Your task to perform on an android device: turn on bluetooth scan Image 0: 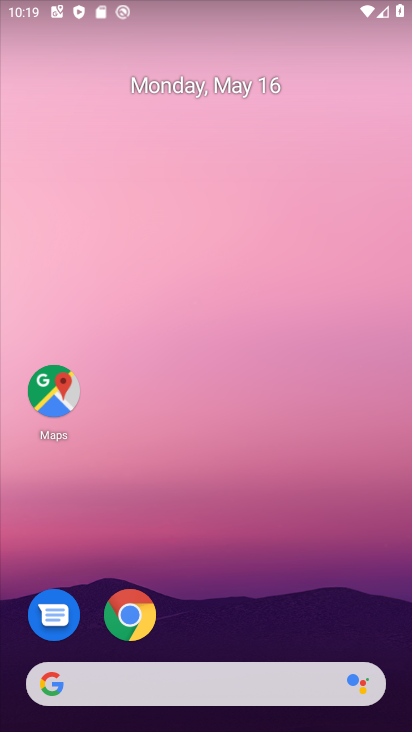
Step 0: drag from (278, 691) to (294, 169)
Your task to perform on an android device: turn on bluetooth scan Image 1: 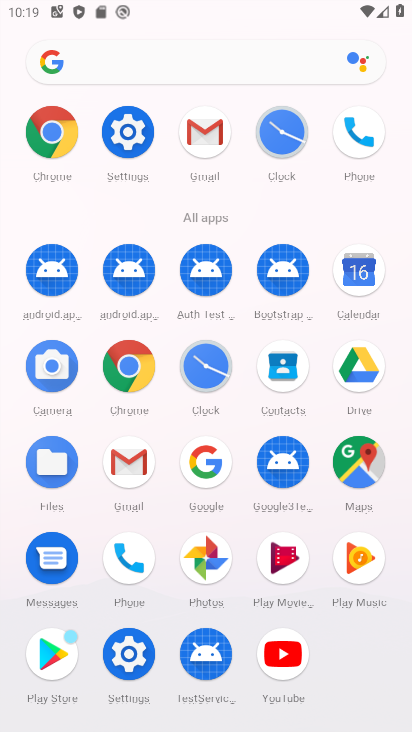
Step 1: click (129, 645)
Your task to perform on an android device: turn on bluetooth scan Image 2: 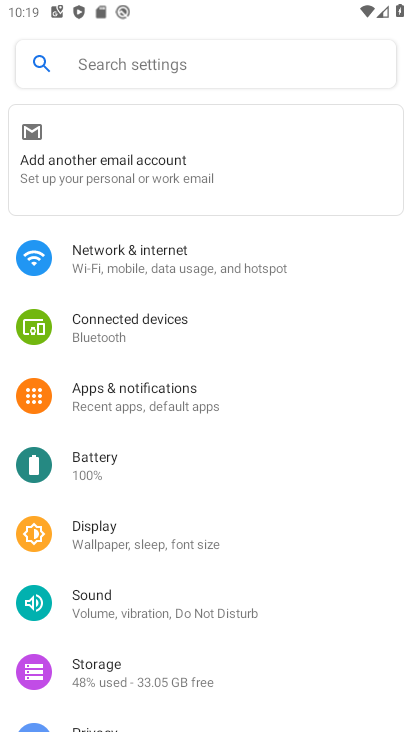
Step 2: click (162, 73)
Your task to perform on an android device: turn on bluetooth scan Image 3: 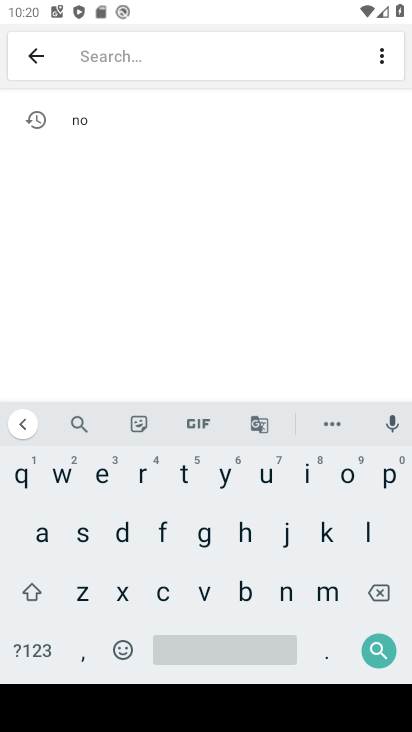
Step 3: click (361, 527)
Your task to perform on an android device: turn on bluetooth scan Image 4: 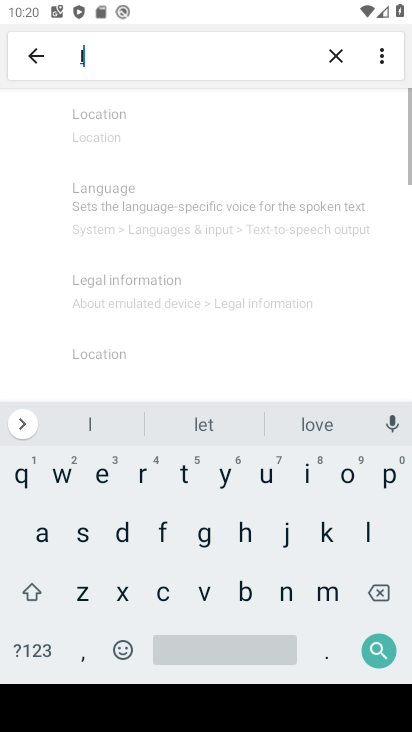
Step 4: click (346, 477)
Your task to perform on an android device: turn on bluetooth scan Image 5: 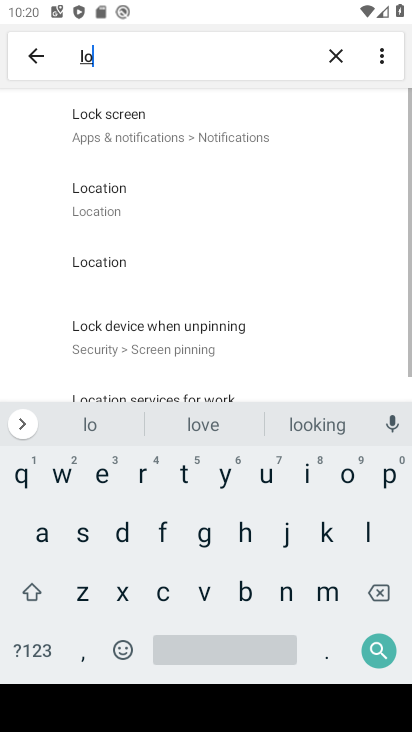
Step 5: click (129, 205)
Your task to perform on an android device: turn on bluetooth scan Image 6: 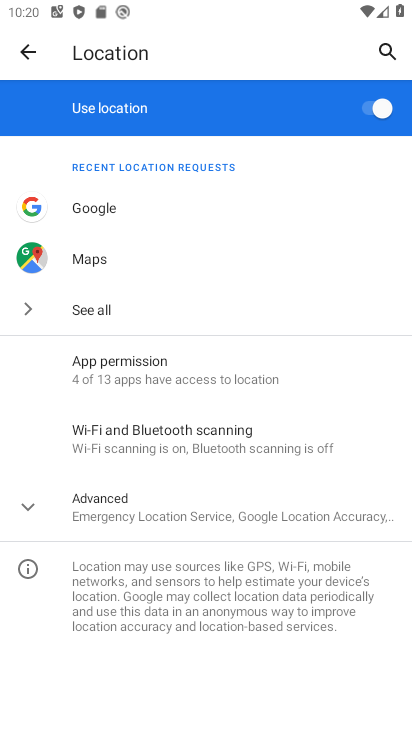
Step 6: click (176, 424)
Your task to perform on an android device: turn on bluetooth scan Image 7: 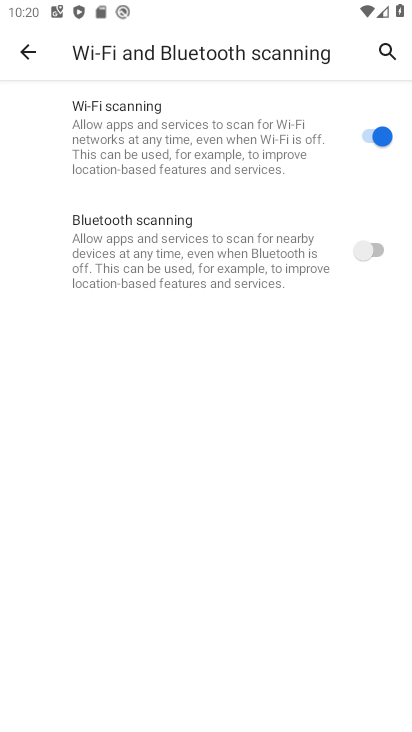
Step 7: click (302, 244)
Your task to perform on an android device: turn on bluetooth scan Image 8: 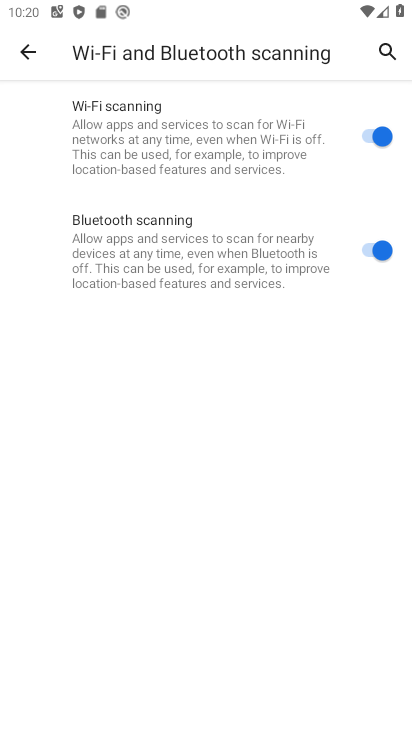
Step 8: task complete